Your task to perform on an android device: Toggle the flashlight Image 0: 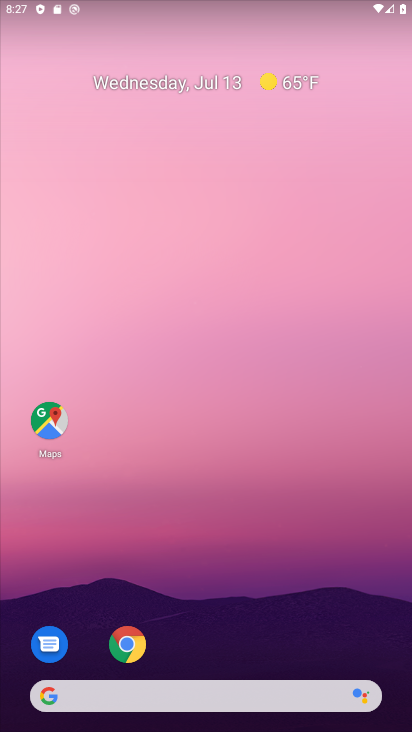
Step 0: drag from (348, 591) to (210, 80)
Your task to perform on an android device: Toggle the flashlight Image 1: 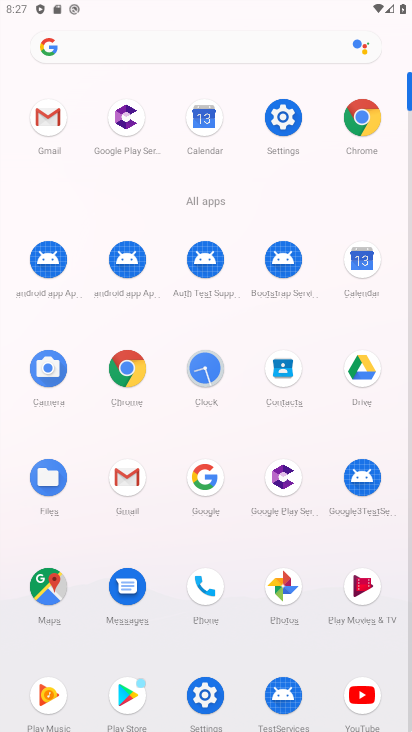
Step 1: click (299, 145)
Your task to perform on an android device: Toggle the flashlight Image 2: 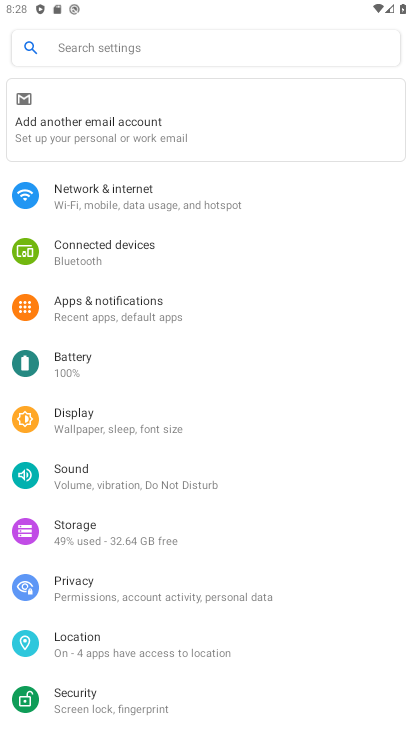
Step 2: task complete